Your task to perform on an android device: Go to Wikipedia Image 0: 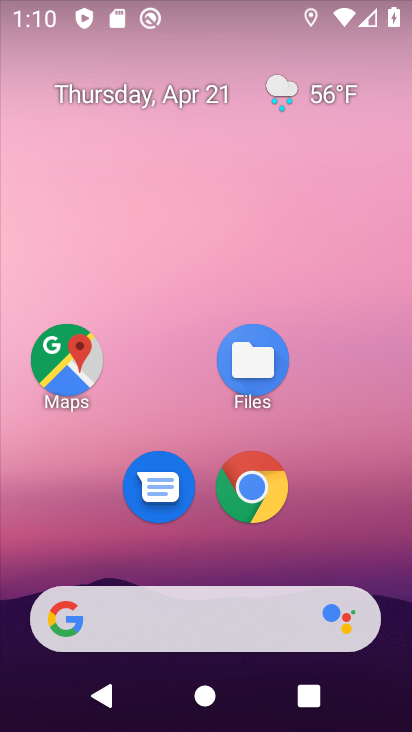
Step 0: drag from (362, 517) to (370, 175)
Your task to perform on an android device: Go to Wikipedia Image 1: 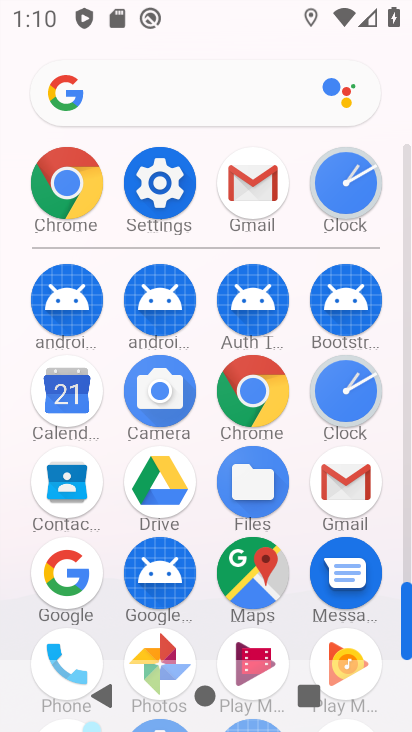
Step 1: click (266, 417)
Your task to perform on an android device: Go to Wikipedia Image 2: 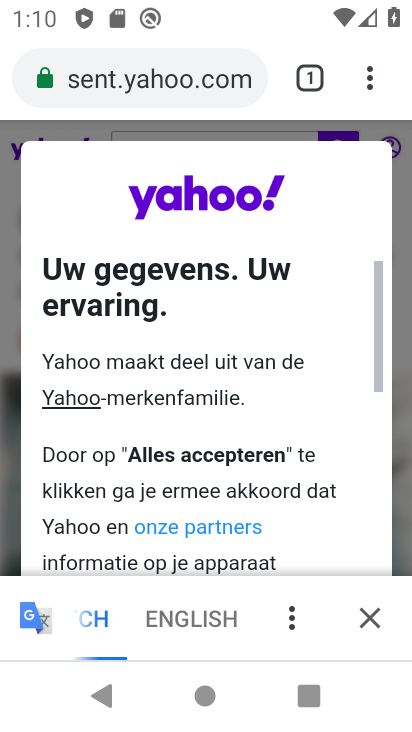
Step 2: click (317, 85)
Your task to perform on an android device: Go to Wikipedia Image 3: 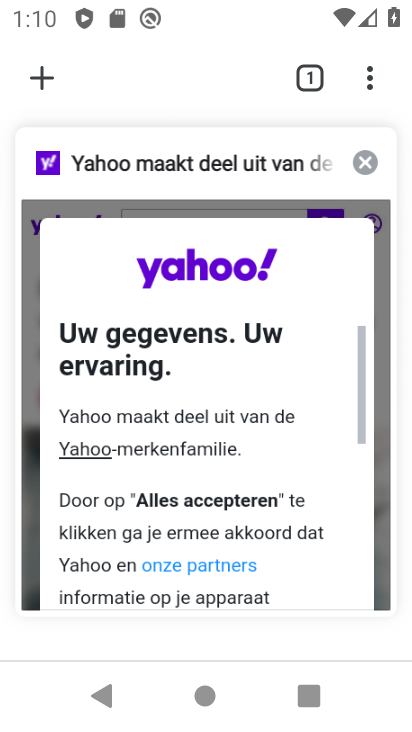
Step 3: click (41, 85)
Your task to perform on an android device: Go to Wikipedia Image 4: 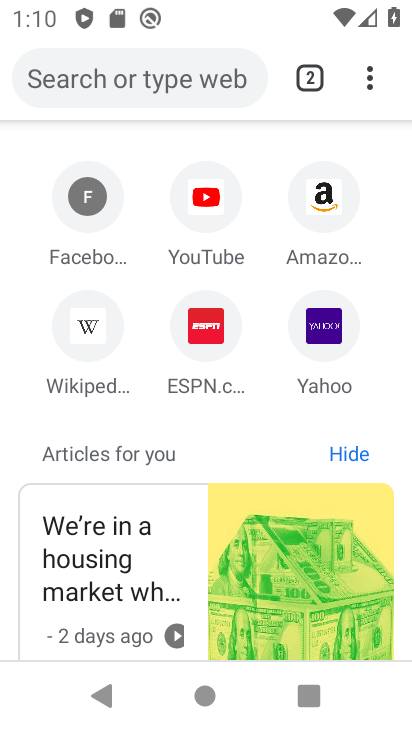
Step 4: click (182, 85)
Your task to perform on an android device: Go to Wikipedia Image 5: 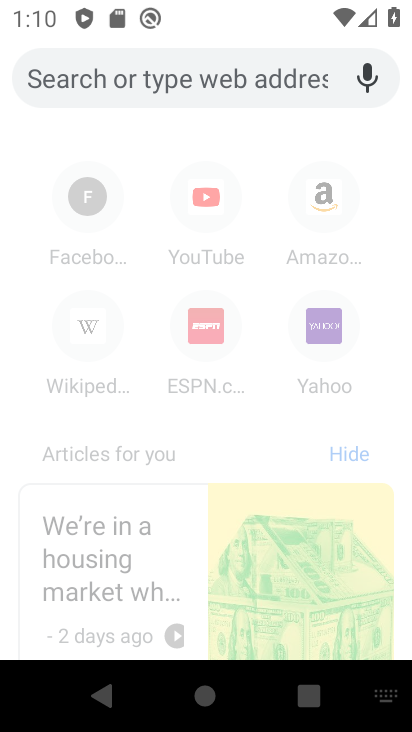
Step 5: click (35, 168)
Your task to perform on an android device: Go to Wikipedia Image 6: 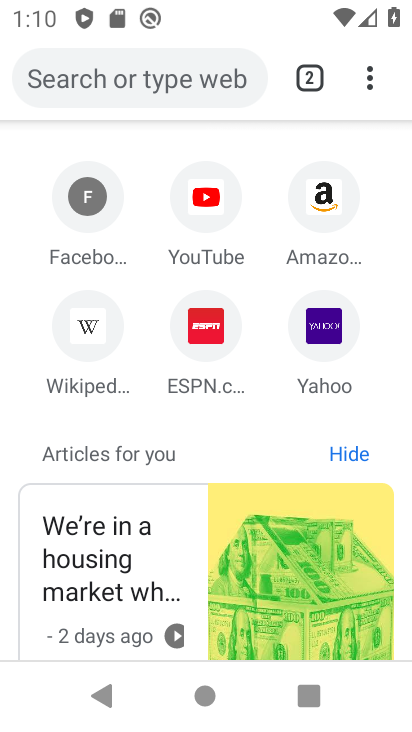
Step 6: click (85, 351)
Your task to perform on an android device: Go to Wikipedia Image 7: 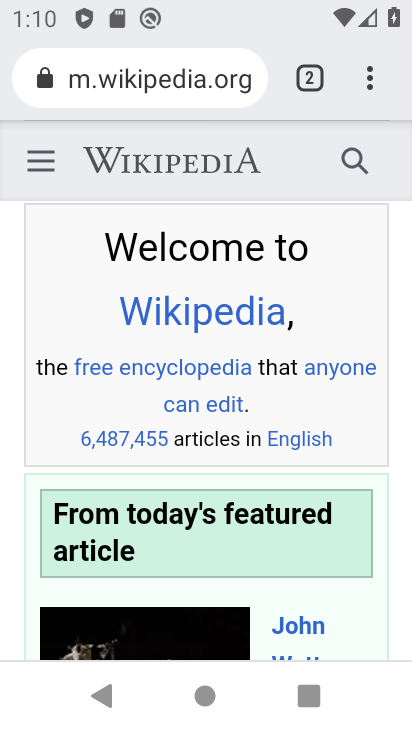
Step 7: task complete